Your task to perform on an android device: turn off smart reply in the gmail app Image 0: 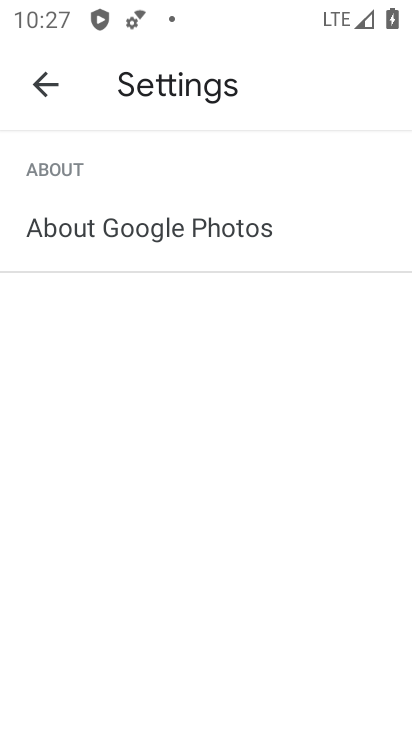
Step 0: press home button
Your task to perform on an android device: turn off smart reply in the gmail app Image 1: 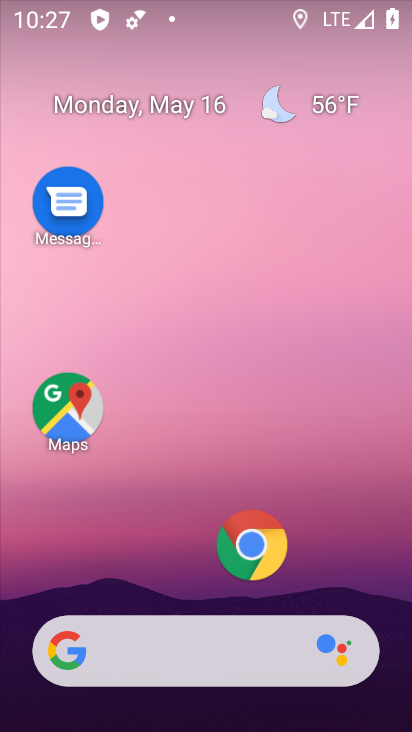
Step 1: drag from (211, 614) to (219, 1)
Your task to perform on an android device: turn off smart reply in the gmail app Image 2: 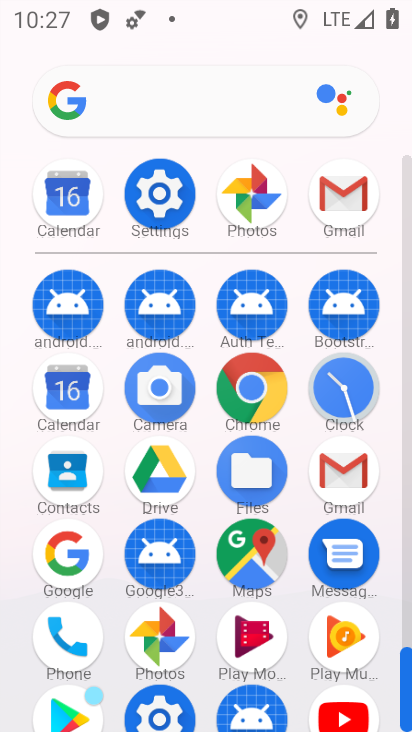
Step 2: click (334, 484)
Your task to perform on an android device: turn off smart reply in the gmail app Image 3: 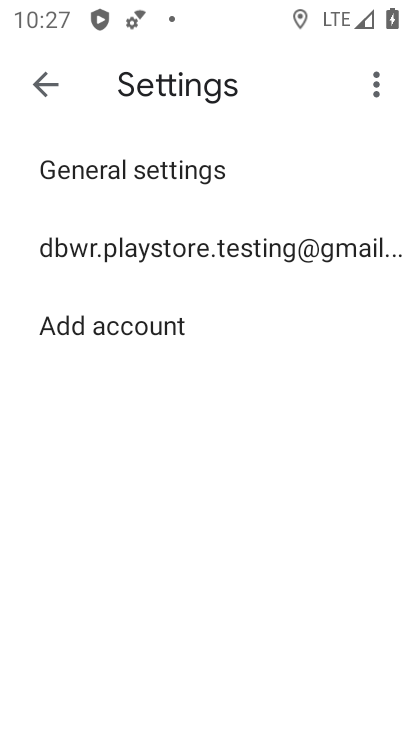
Step 3: click (157, 266)
Your task to perform on an android device: turn off smart reply in the gmail app Image 4: 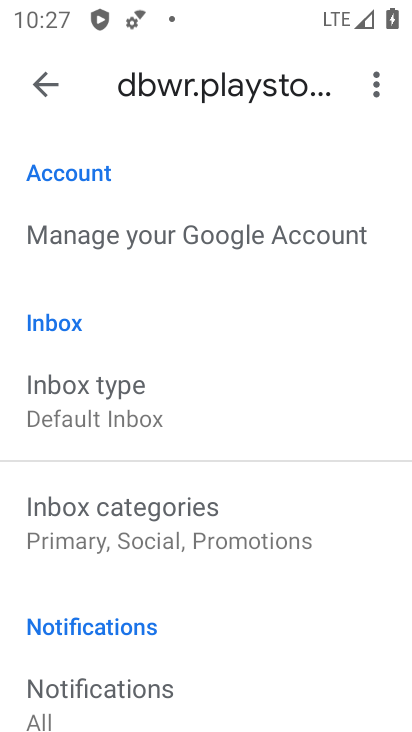
Step 4: drag from (208, 514) to (210, 149)
Your task to perform on an android device: turn off smart reply in the gmail app Image 5: 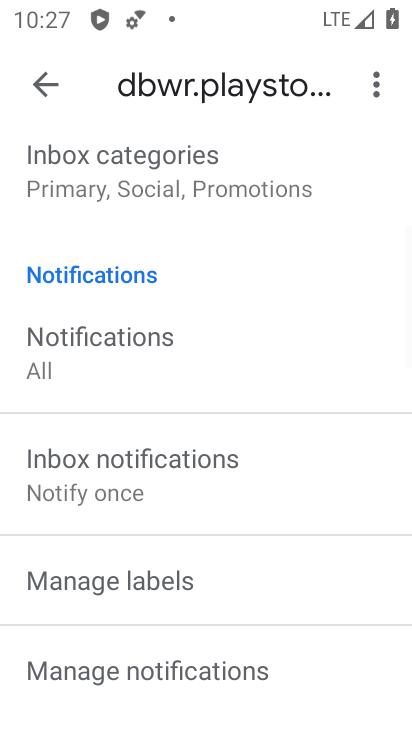
Step 5: drag from (179, 575) to (185, 207)
Your task to perform on an android device: turn off smart reply in the gmail app Image 6: 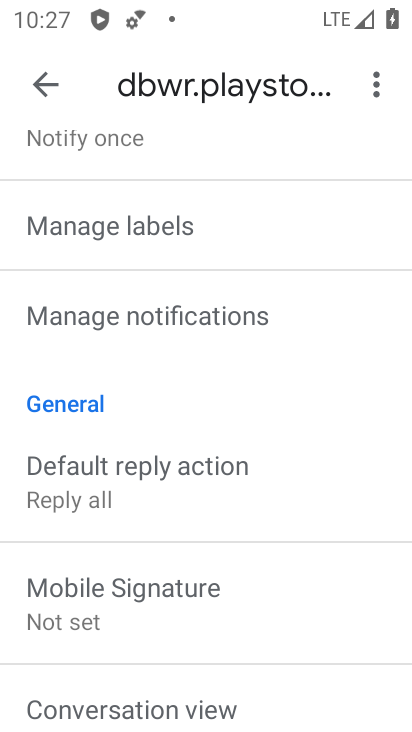
Step 6: drag from (289, 521) to (211, 23)
Your task to perform on an android device: turn off smart reply in the gmail app Image 7: 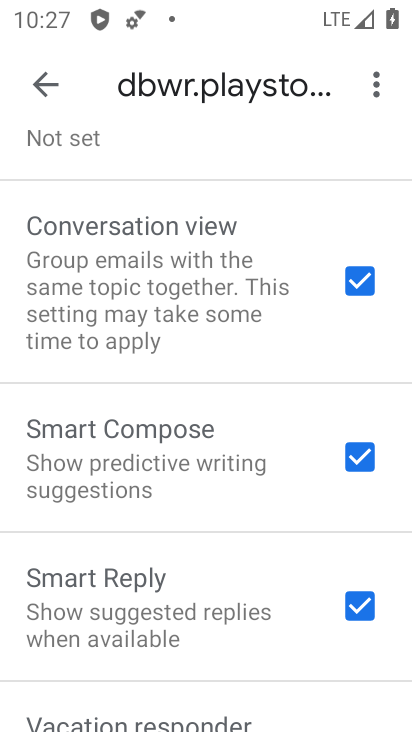
Step 7: click (375, 620)
Your task to perform on an android device: turn off smart reply in the gmail app Image 8: 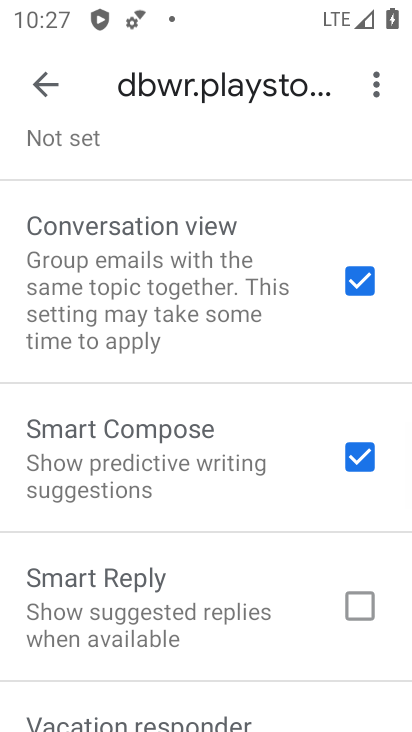
Step 8: task complete